Your task to perform on an android device: Is it going to rain tomorrow? Image 0: 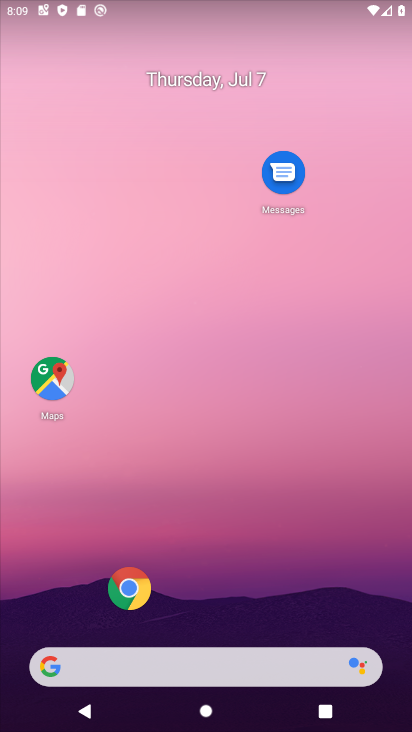
Step 0: click (121, 673)
Your task to perform on an android device: Is it going to rain tomorrow? Image 1: 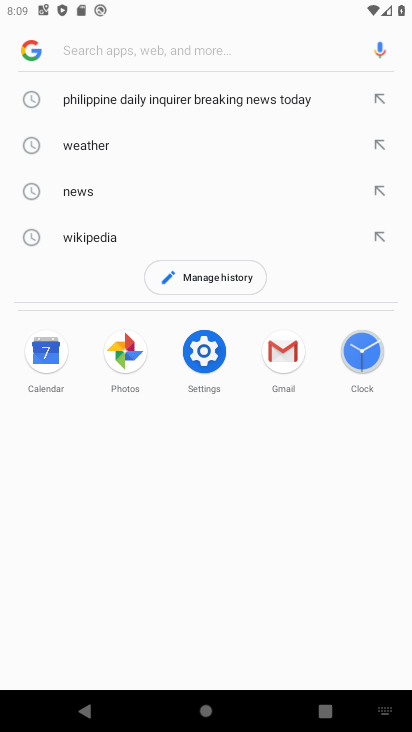
Step 1: type "Is it going to rain tomorrow?"
Your task to perform on an android device: Is it going to rain tomorrow? Image 2: 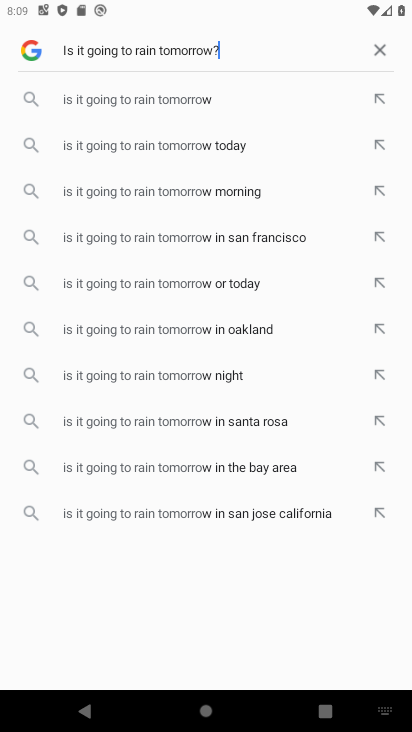
Step 2: type ""
Your task to perform on an android device: Is it going to rain tomorrow? Image 3: 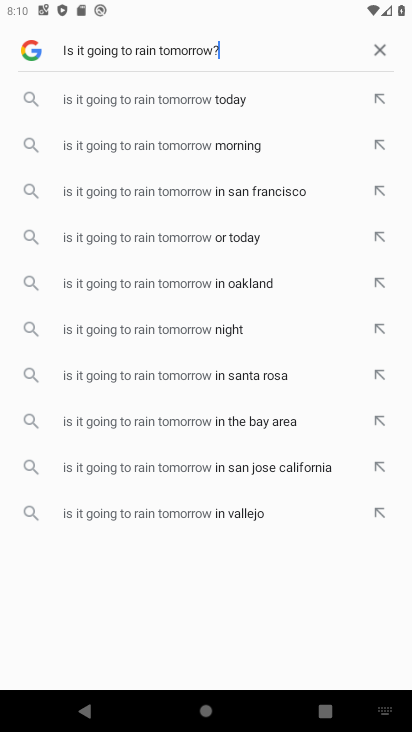
Step 3: click (265, 64)
Your task to perform on an android device: Is it going to rain tomorrow? Image 4: 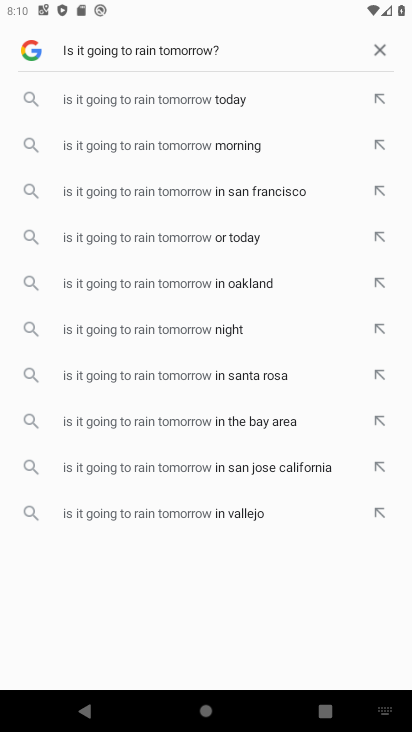
Step 4: type "   "
Your task to perform on an android device: Is it going to rain tomorrow? Image 5: 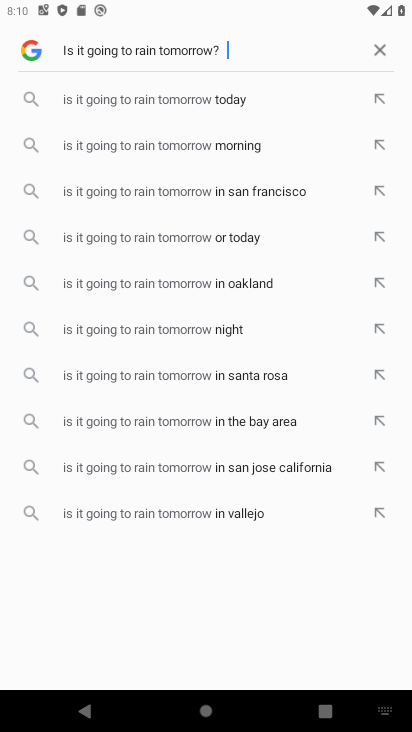
Step 5: type ""
Your task to perform on an android device: Is it going to rain tomorrow? Image 6: 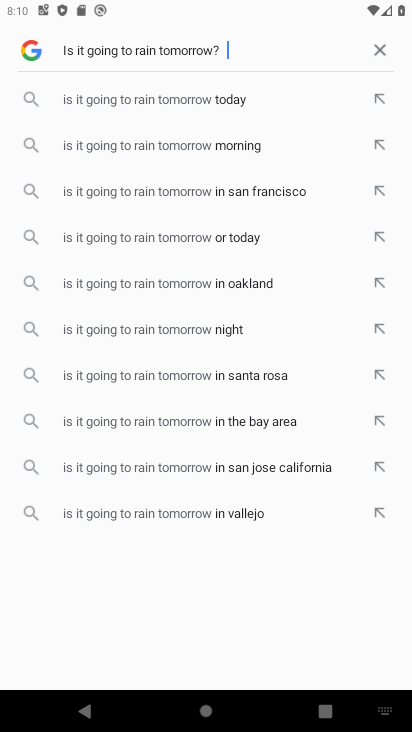
Step 6: click (261, 52)
Your task to perform on an android device: Is it going to rain tomorrow? Image 7: 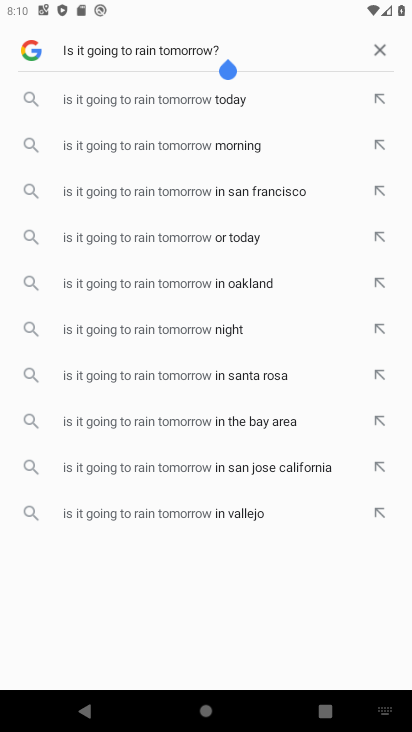
Step 7: click (30, 49)
Your task to perform on an android device: Is it going to rain tomorrow? Image 8: 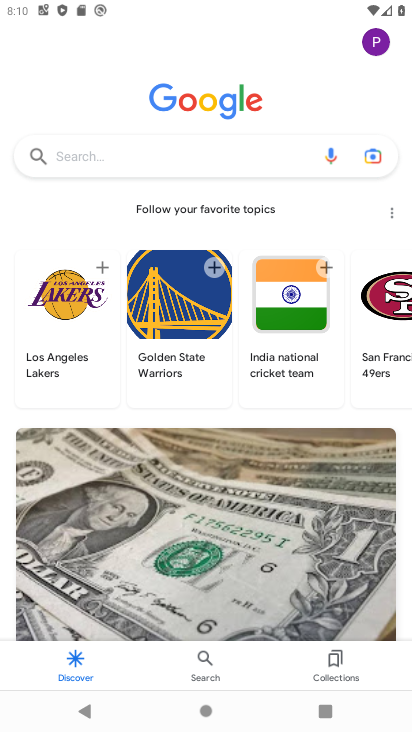
Step 8: task complete